Your task to perform on an android device: Go to Amazon Image 0: 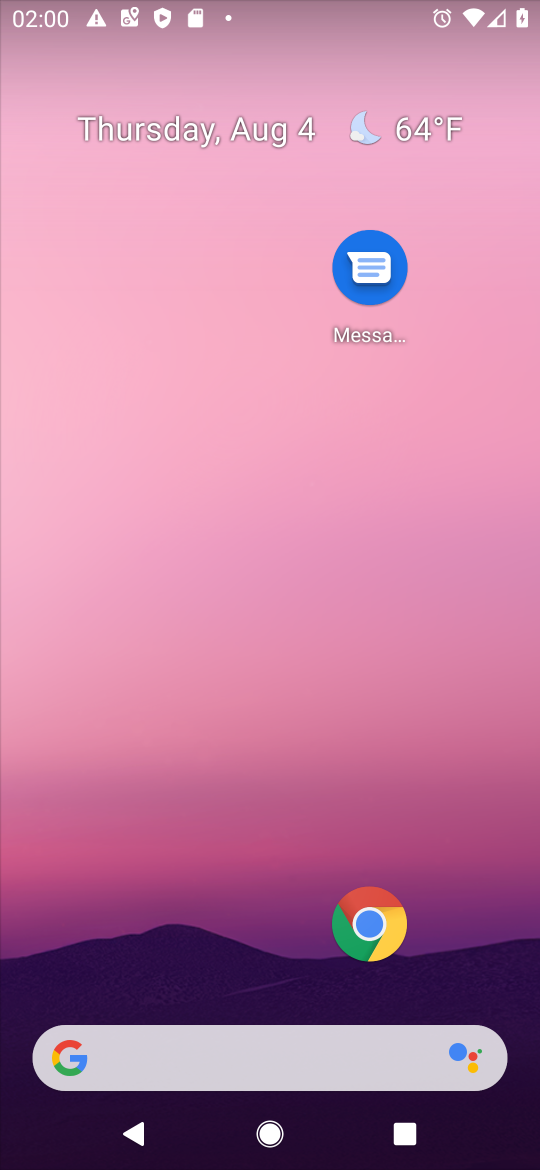
Step 0: drag from (203, 729) to (352, 53)
Your task to perform on an android device: Go to Amazon Image 1: 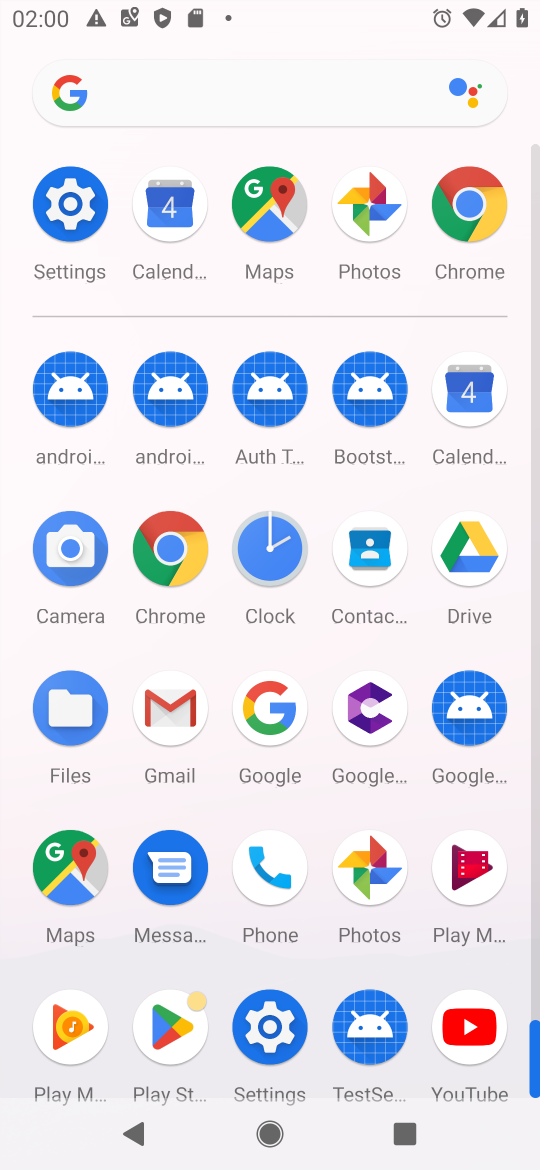
Step 1: click (167, 53)
Your task to perform on an android device: Go to Amazon Image 2: 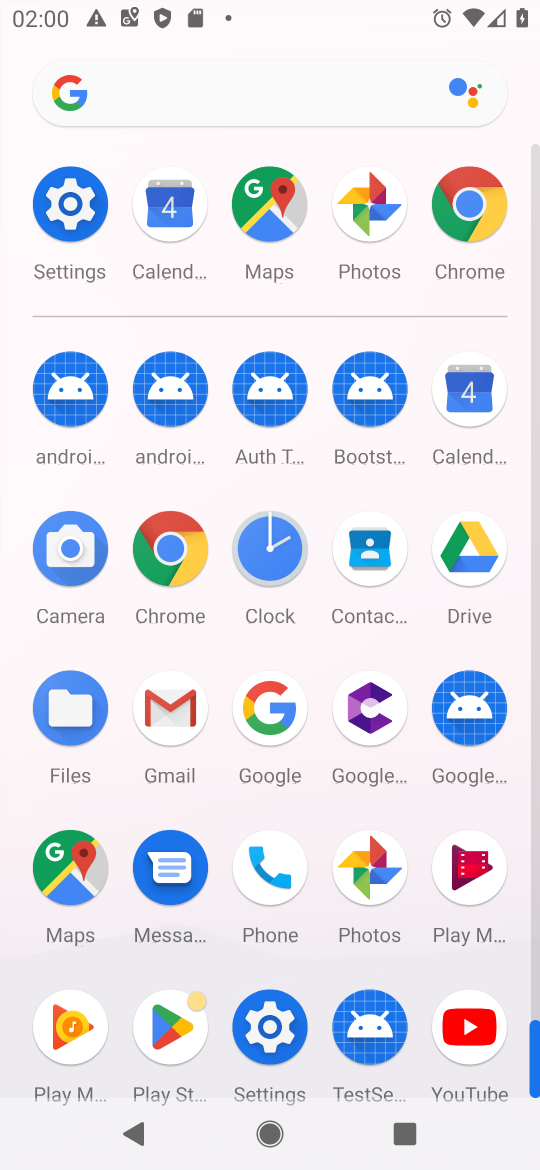
Step 2: click (128, 102)
Your task to perform on an android device: Go to Amazon Image 3: 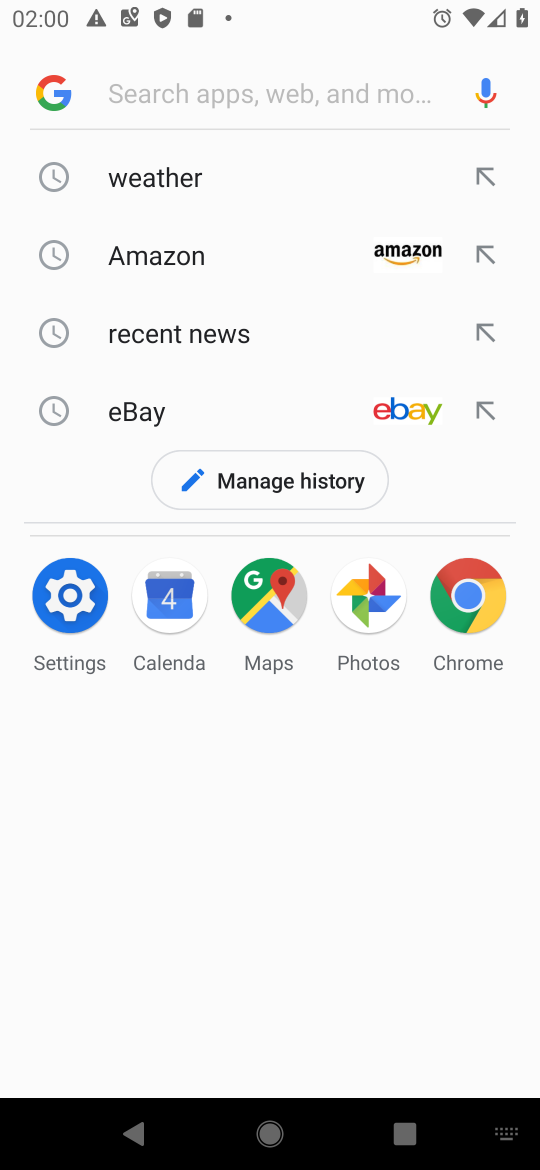
Step 3: click (195, 250)
Your task to perform on an android device: Go to Amazon Image 4: 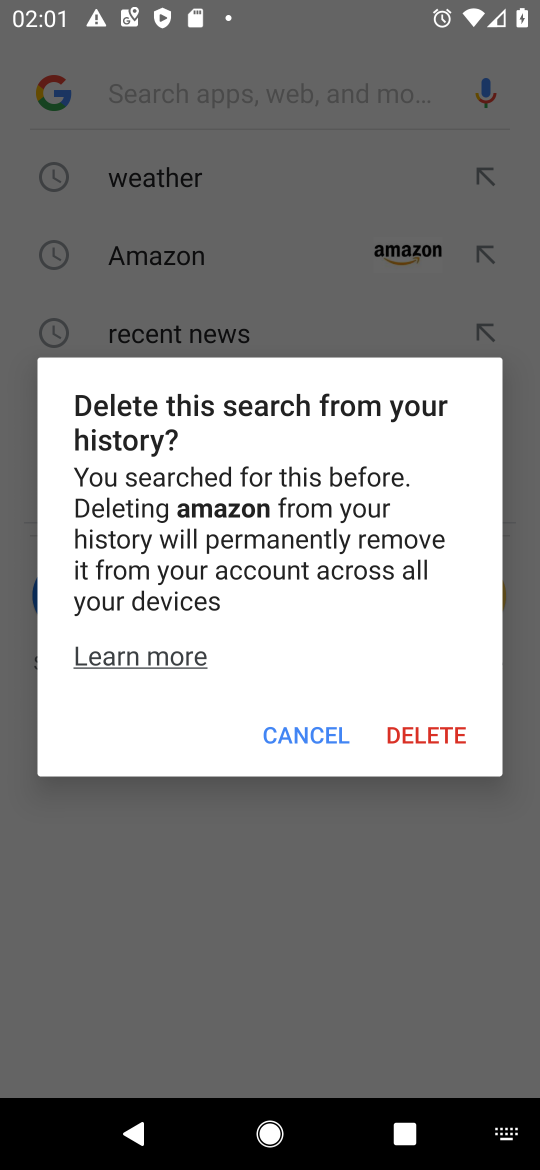
Step 4: click (290, 723)
Your task to perform on an android device: Go to Amazon Image 5: 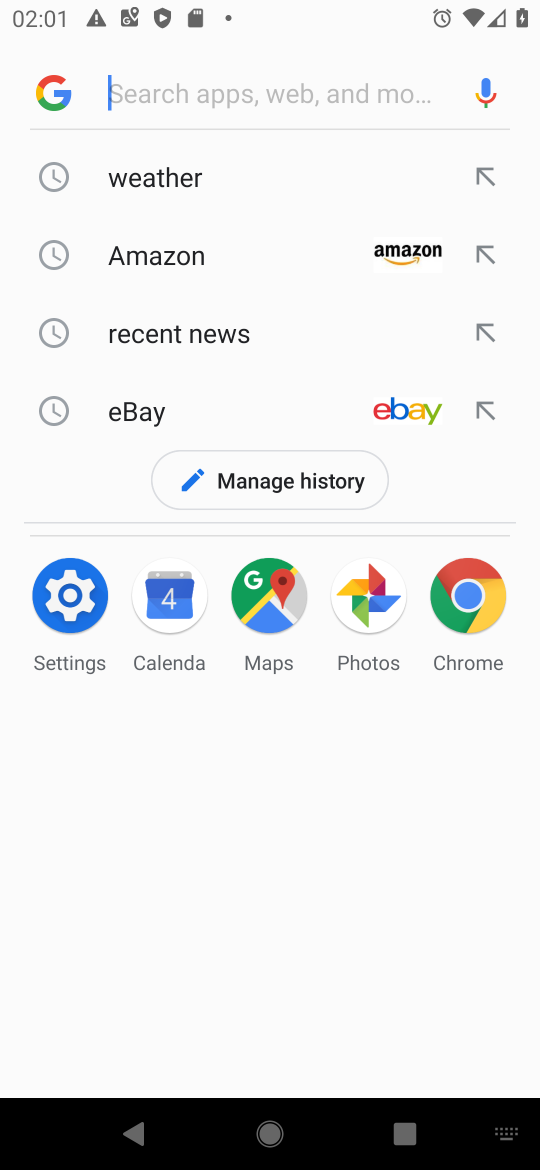
Step 5: click (166, 260)
Your task to perform on an android device: Go to Amazon Image 6: 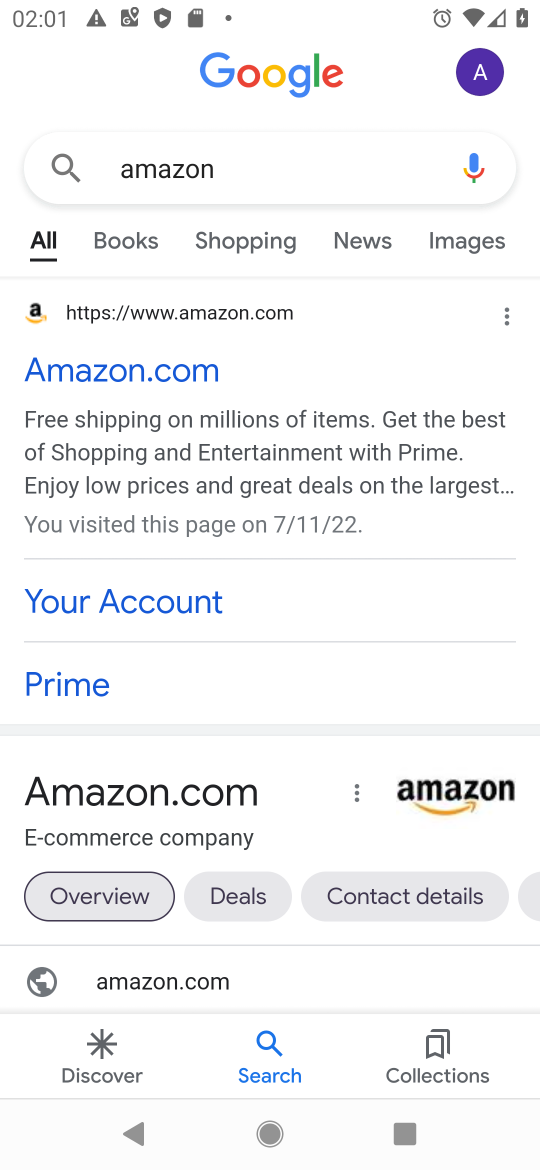
Step 6: task complete